Your task to perform on an android device: Open Wikipedia Image 0: 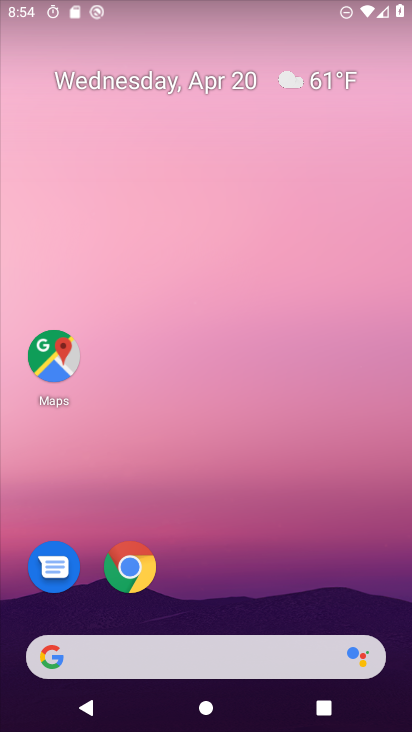
Step 0: click (148, 569)
Your task to perform on an android device: Open Wikipedia Image 1: 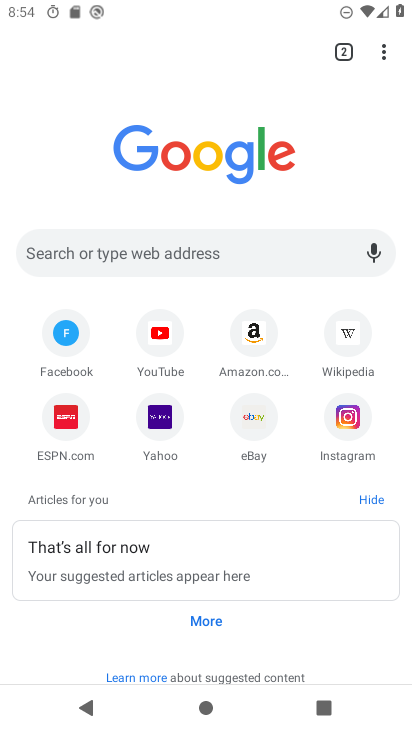
Step 1: click (350, 351)
Your task to perform on an android device: Open Wikipedia Image 2: 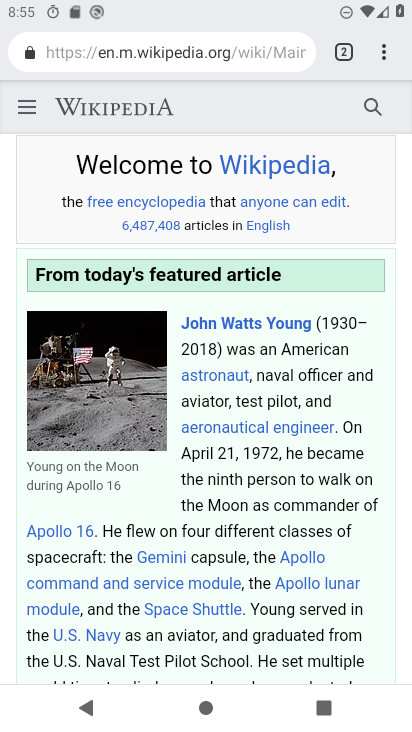
Step 2: task complete